Your task to perform on an android device: find which apps use the phone's location Image 0: 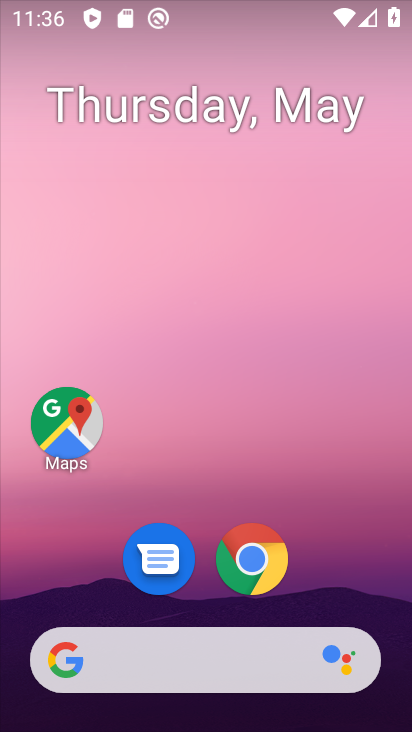
Step 0: drag from (252, 373) to (321, 5)
Your task to perform on an android device: find which apps use the phone's location Image 1: 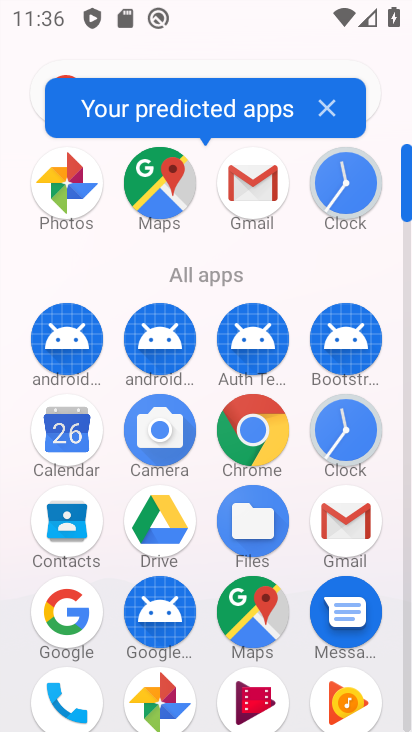
Step 1: drag from (254, 451) to (316, 49)
Your task to perform on an android device: find which apps use the phone's location Image 2: 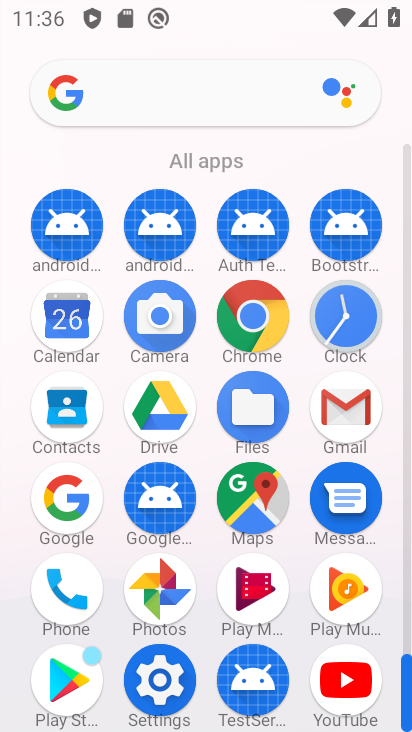
Step 2: drag from (249, 501) to (289, 200)
Your task to perform on an android device: find which apps use the phone's location Image 3: 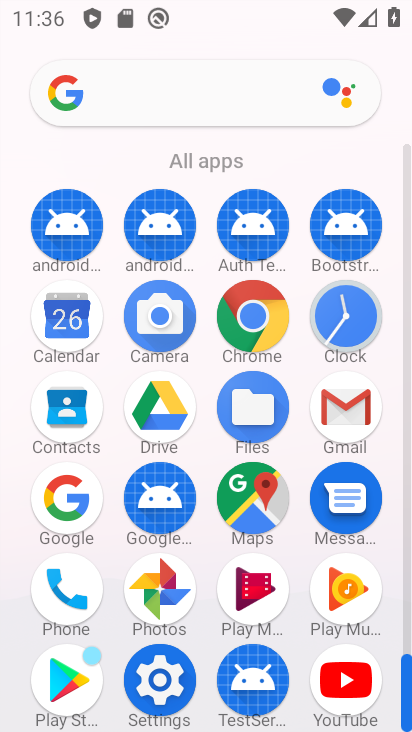
Step 3: click (173, 672)
Your task to perform on an android device: find which apps use the phone's location Image 4: 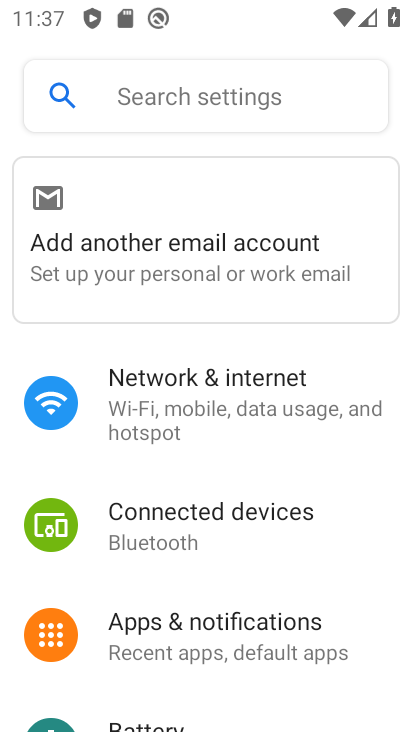
Step 4: drag from (143, 630) to (340, 53)
Your task to perform on an android device: find which apps use the phone's location Image 5: 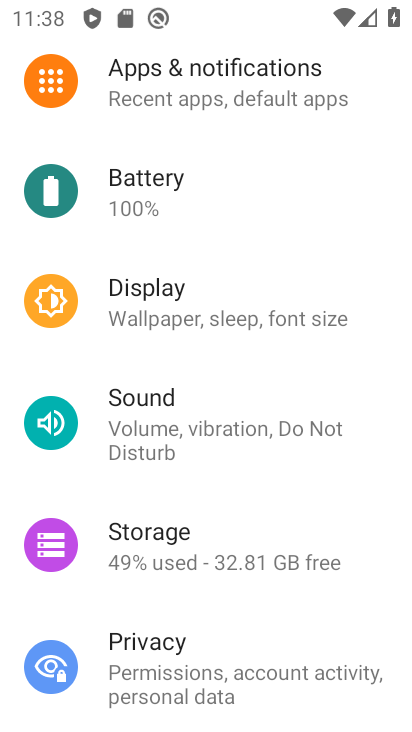
Step 5: drag from (162, 550) to (225, 119)
Your task to perform on an android device: find which apps use the phone's location Image 6: 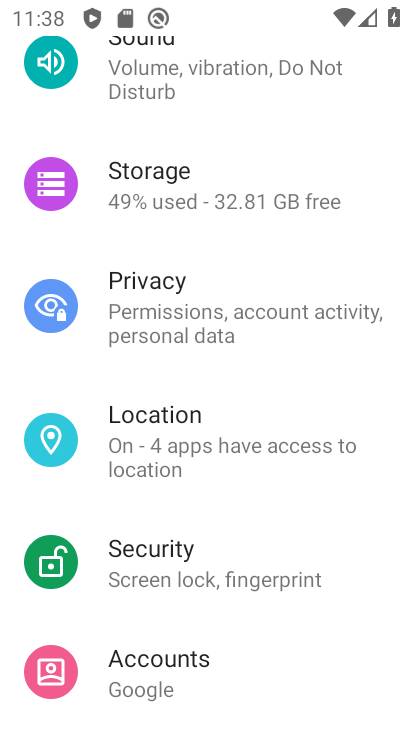
Step 6: click (195, 444)
Your task to perform on an android device: find which apps use the phone's location Image 7: 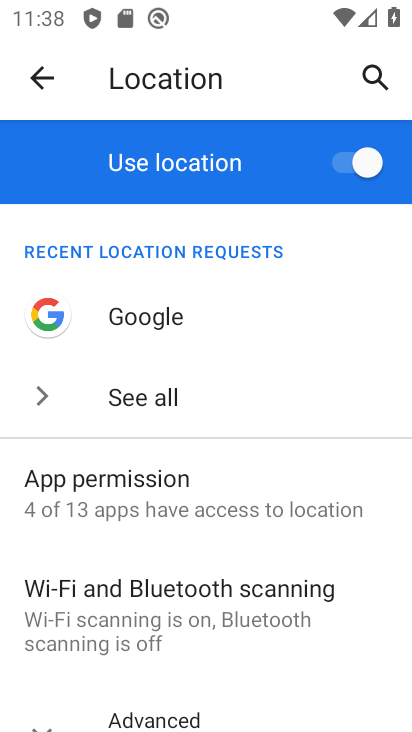
Step 7: drag from (209, 519) to (222, 443)
Your task to perform on an android device: find which apps use the phone's location Image 8: 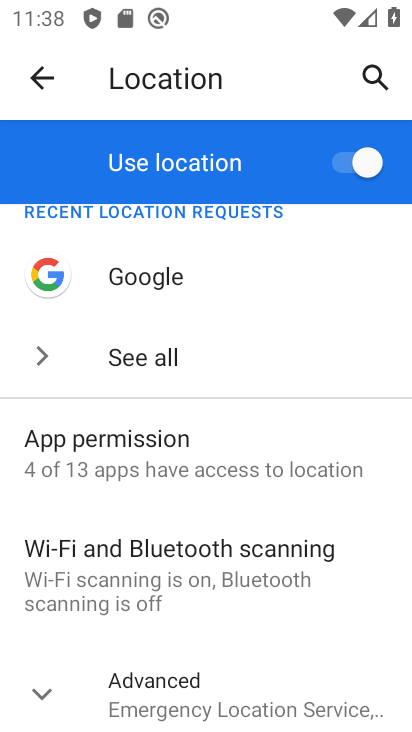
Step 8: click (232, 452)
Your task to perform on an android device: find which apps use the phone's location Image 9: 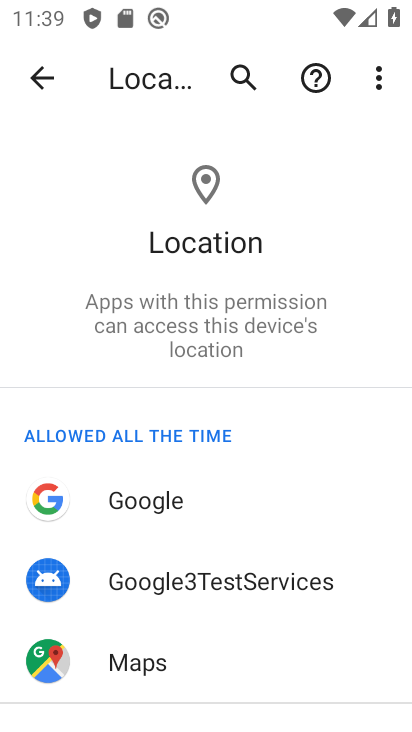
Step 9: task complete